Your task to perform on an android device: turn vacation reply on in the gmail app Image 0: 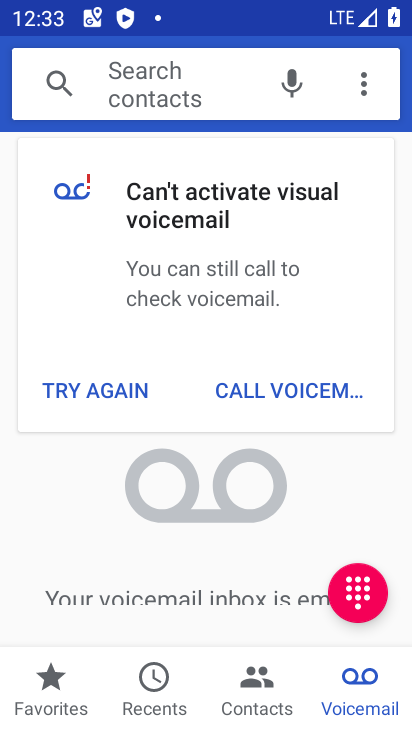
Step 0: press home button
Your task to perform on an android device: turn vacation reply on in the gmail app Image 1: 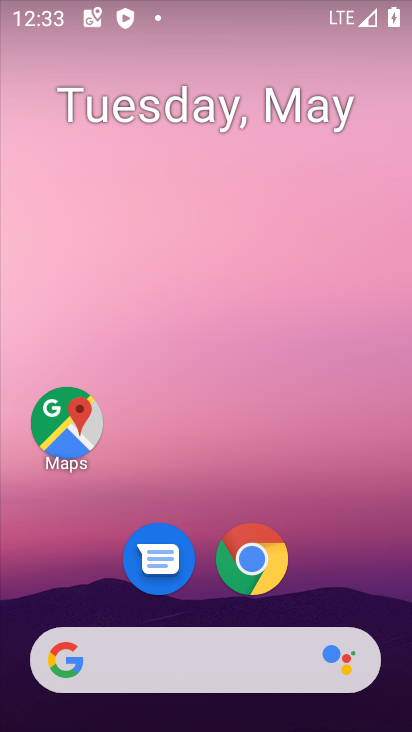
Step 1: drag from (364, 561) to (367, 133)
Your task to perform on an android device: turn vacation reply on in the gmail app Image 2: 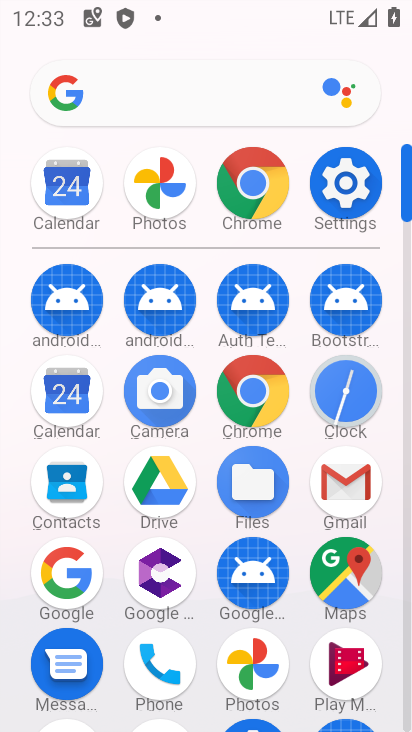
Step 2: click (353, 492)
Your task to perform on an android device: turn vacation reply on in the gmail app Image 3: 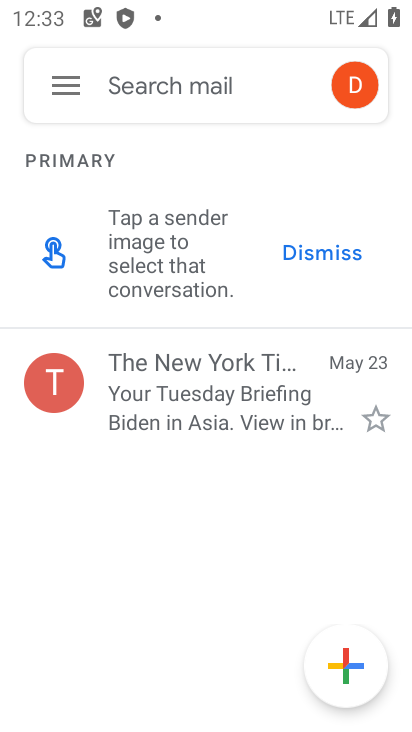
Step 3: click (73, 88)
Your task to perform on an android device: turn vacation reply on in the gmail app Image 4: 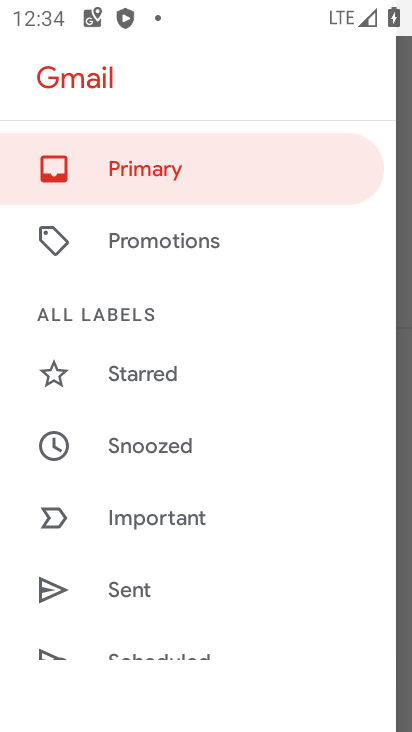
Step 4: drag from (148, 500) to (112, 86)
Your task to perform on an android device: turn vacation reply on in the gmail app Image 5: 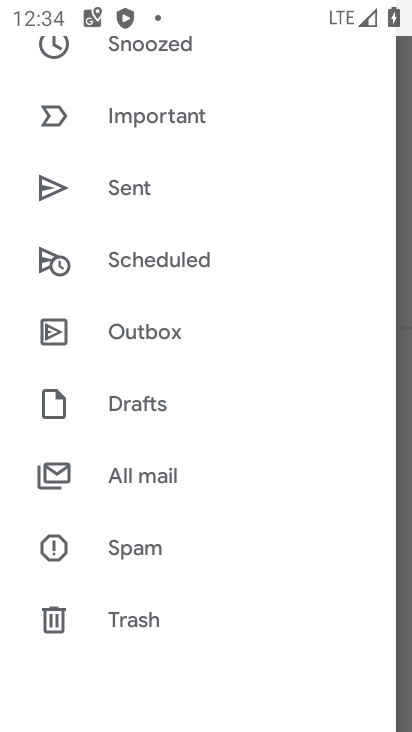
Step 5: drag from (175, 631) to (143, 290)
Your task to perform on an android device: turn vacation reply on in the gmail app Image 6: 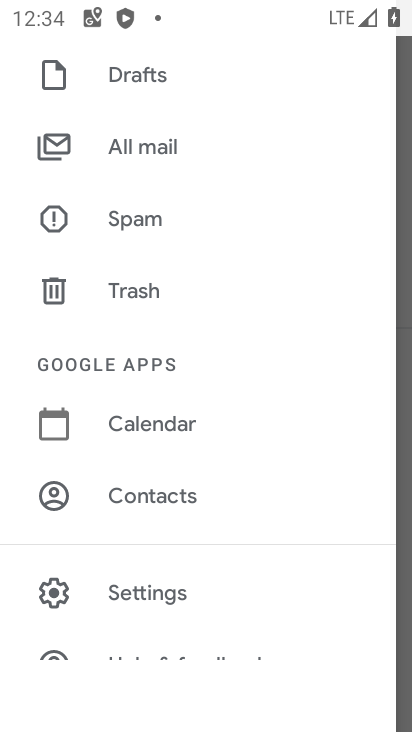
Step 6: drag from (169, 636) to (168, 376)
Your task to perform on an android device: turn vacation reply on in the gmail app Image 7: 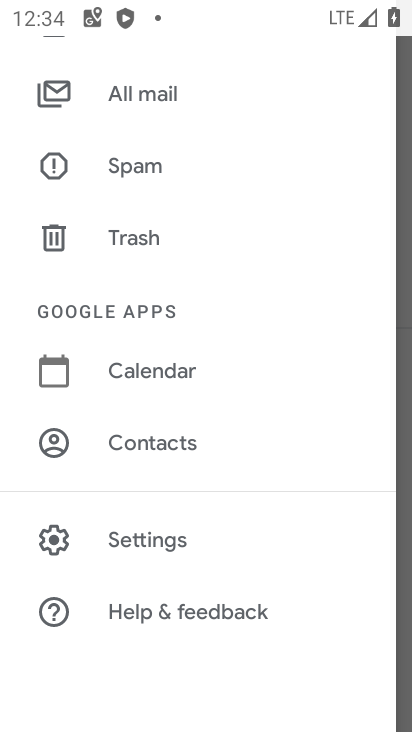
Step 7: click (119, 512)
Your task to perform on an android device: turn vacation reply on in the gmail app Image 8: 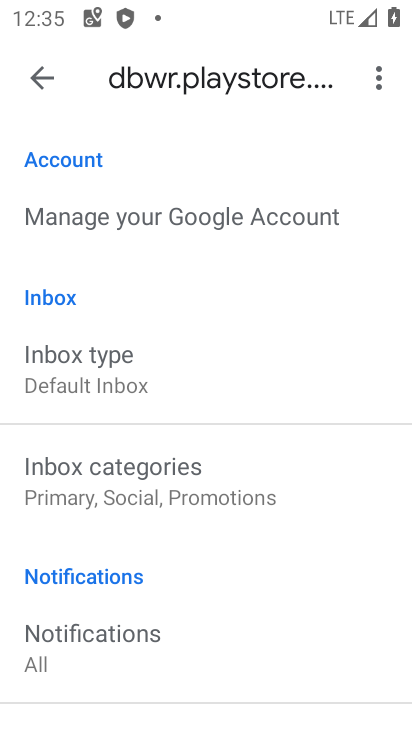
Step 8: task complete